Your task to perform on an android device: Open privacy settings Image 0: 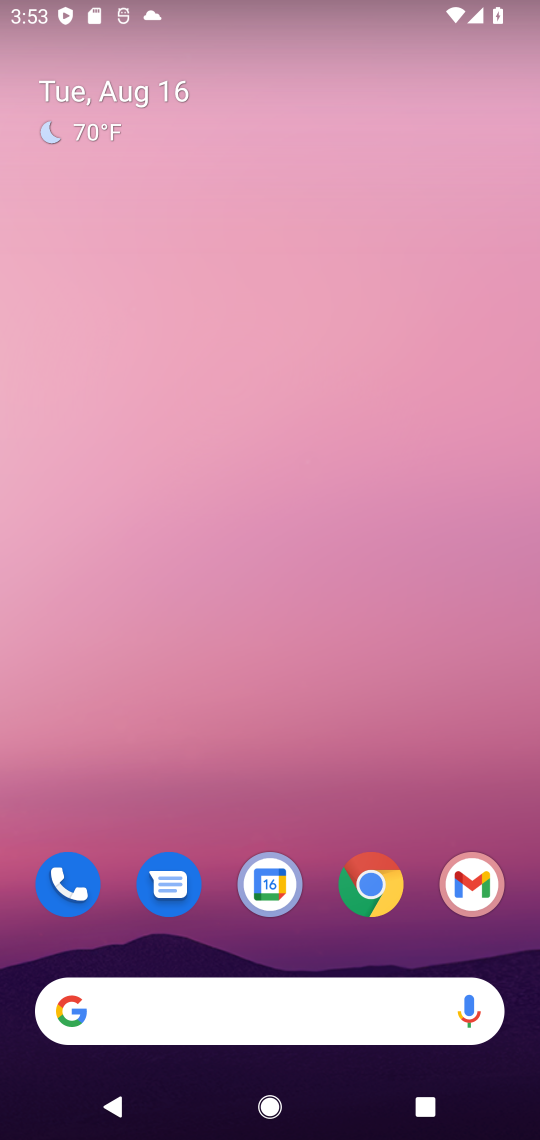
Step 0: drag from (250, 803) to (202, 262)
Your task to perform on an android device: Open privacy settings Image 1: 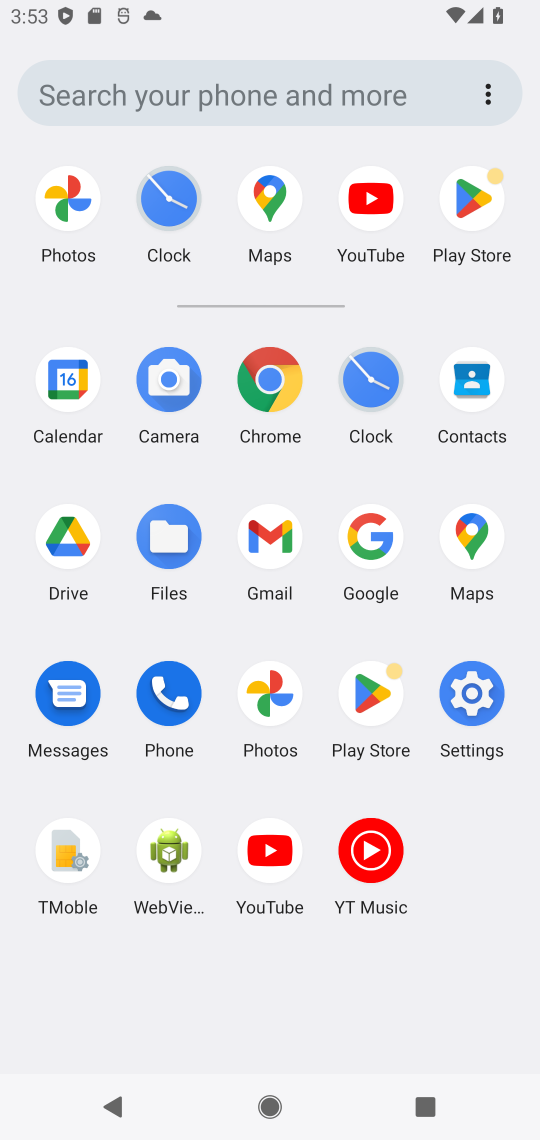
Step 1: click (484, 712)
Your task to perform on an android device: Open privacy settings Image 2: 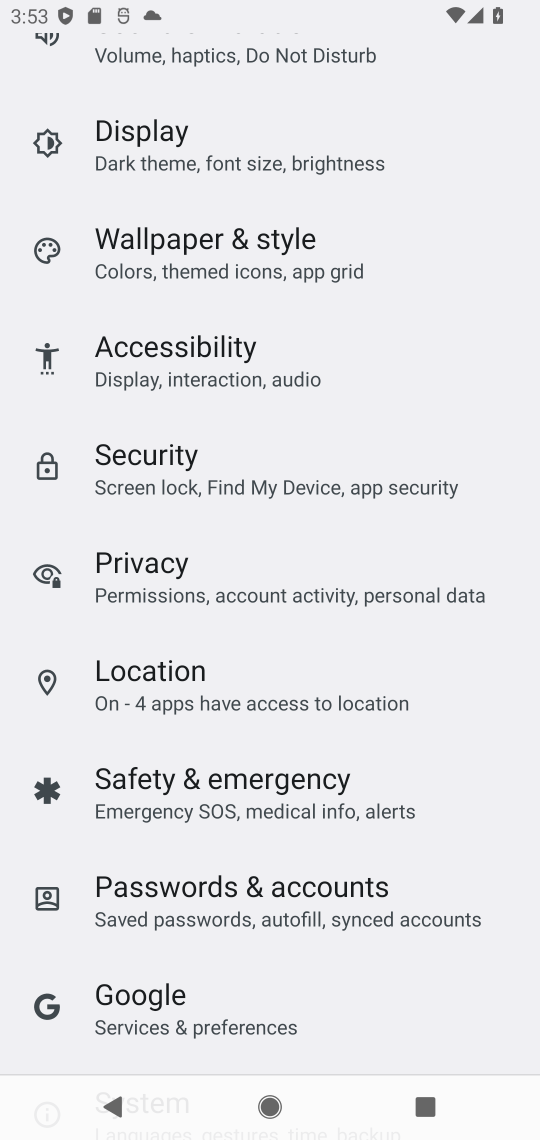
Step 2: click (210, 582)
Your task to perform on an android device: Open privacy settings Image 3: 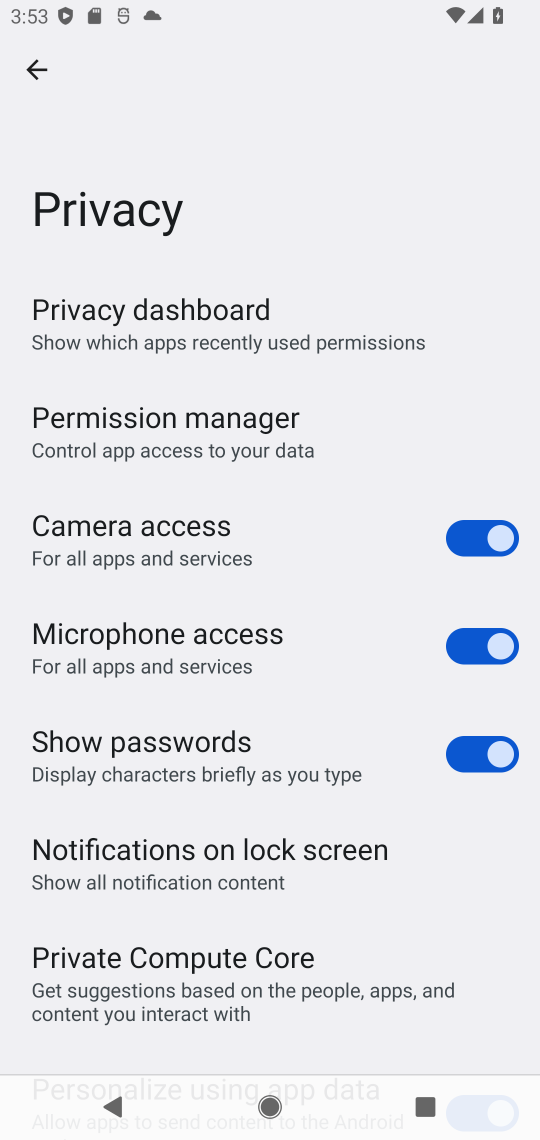
Step 3: task complete